Your task to perform on an android device: Go to Wikipedia Image 0: 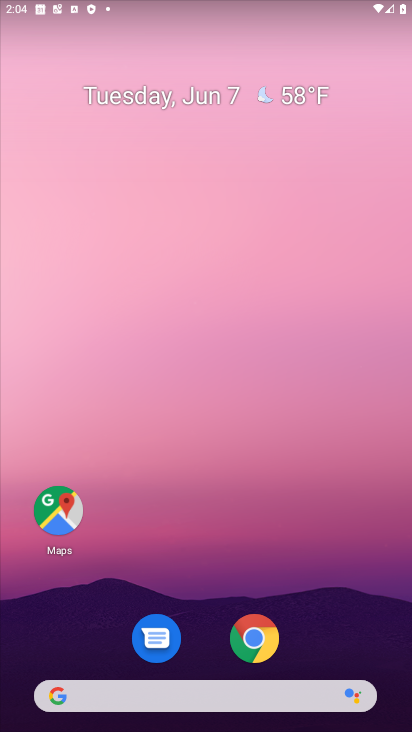
Step 0: drag from (243, 640) to (237, 286)
Your task to perform on an android device: Go to Wikipedia Image 1: 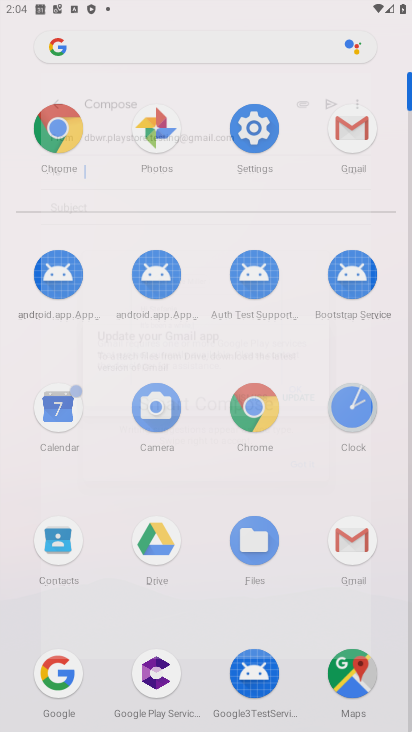
Step 1: click (48, 134)
Your task to perform on an android device: Go to Wikipedia Image 2: 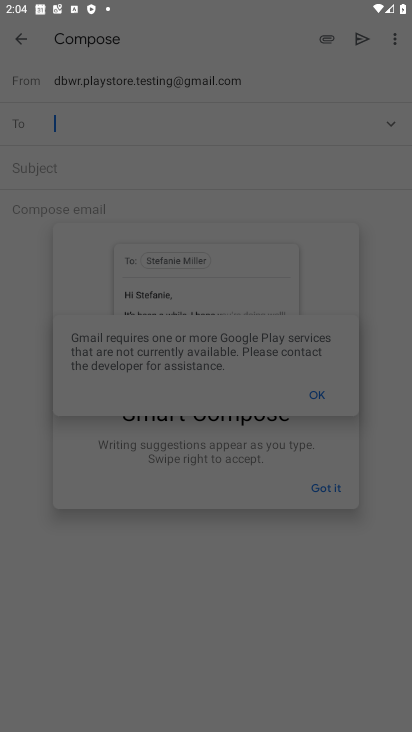
Step 2: press home button
Your task to perform on an android device: Go to Wikipedia Image 3: 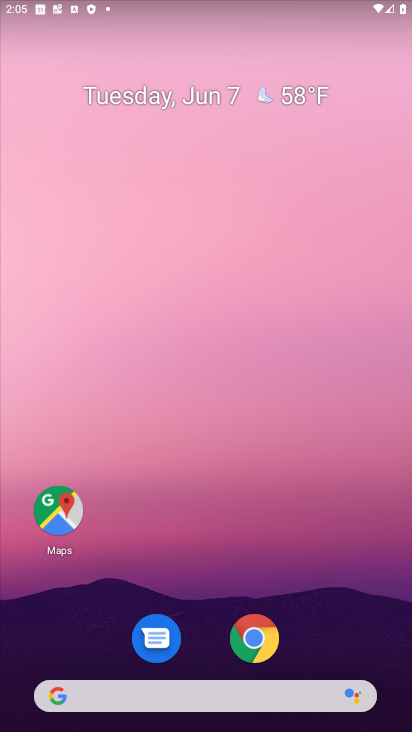
Step 3: drag from (200, 555) to (189, 266)
Your task to perform on an android device: Go to Wikipedia Image 4: 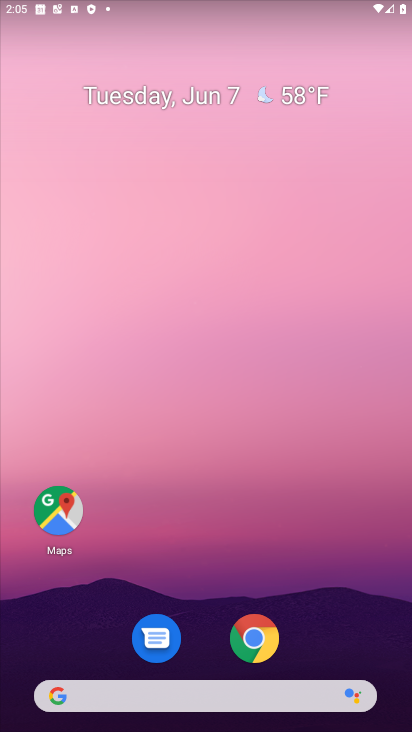
Step 4: drag from (178, 360) to (165, 290)
Your task to perform on an android device: Go to Wikipedia Image 5: 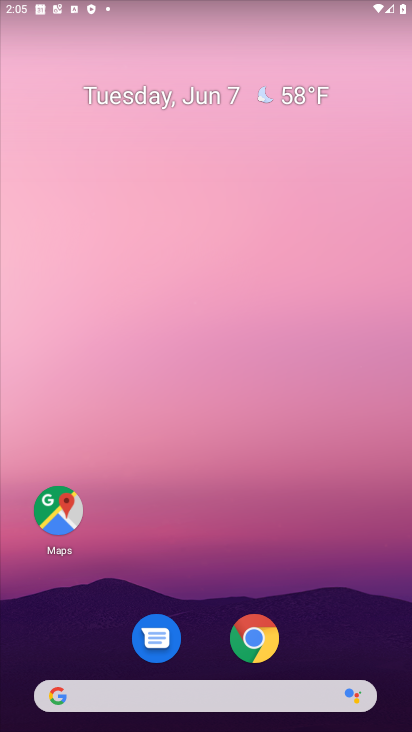
Step 5: drag from (246, 484) to (174, 133)
Your task to perform on an android device: Go to Wikipedia Image 6: 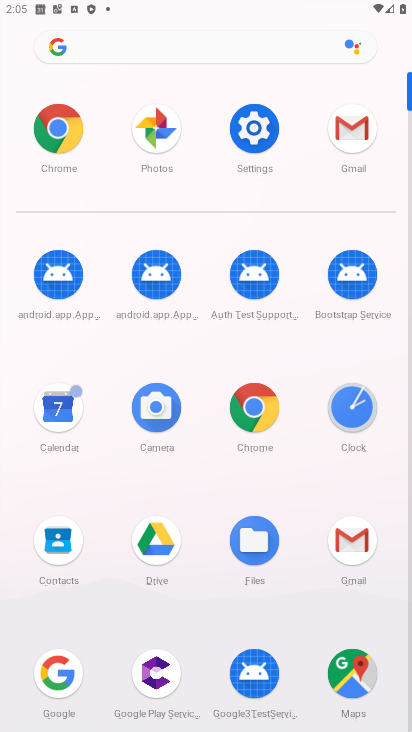
Step 6: click (247, 407)
Your task to perform on an android device: Go to Wikipedia Image 7: 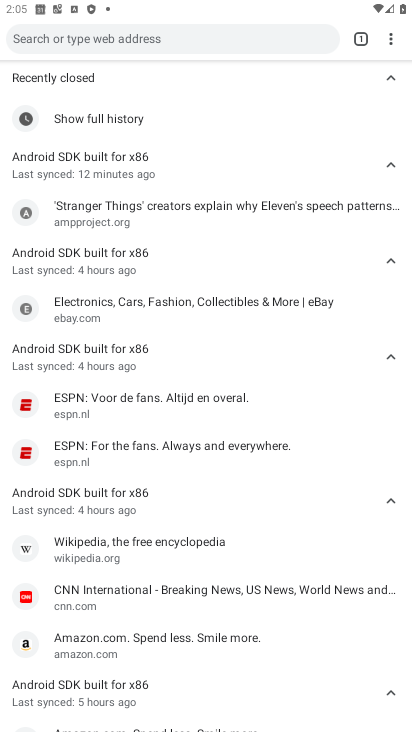
Step 7: click (63, 37)
Your task to perform on an android device: Go to Wikipedia Image 8: 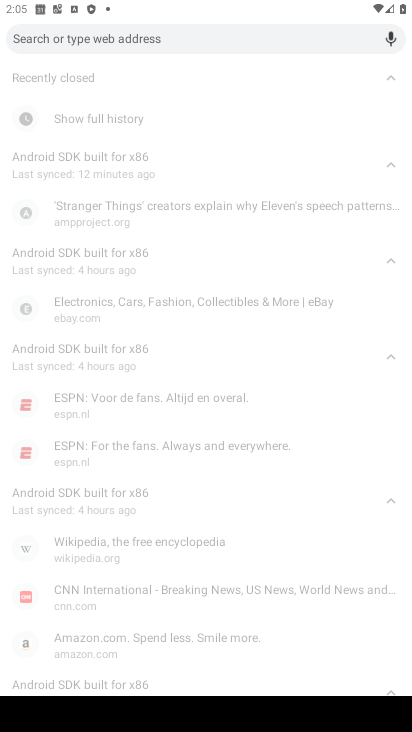
Step 8: type "Wikipedia"
Your task to perform on an android device: Go to Wikipedia Image 9: 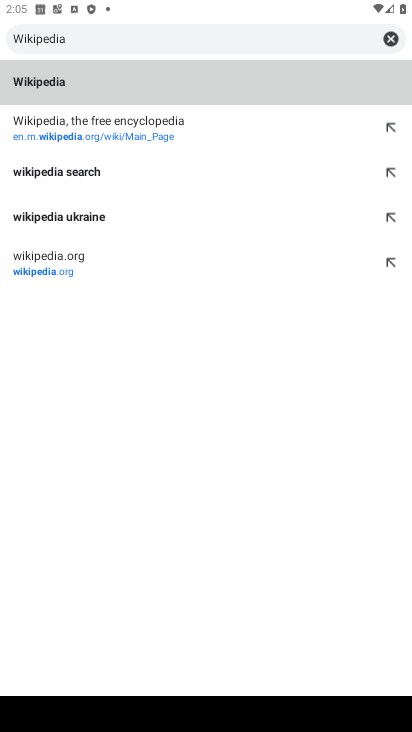
Step 9: click (73, 179)
Your task to perform on an android device: Go to Wikipedia Image 10: 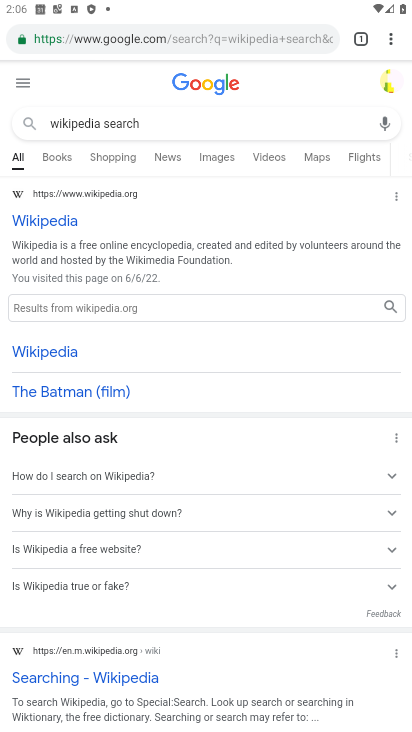
Step 10: task complete